Your task to perform on an android device: Go to ESPN.com Image 0: 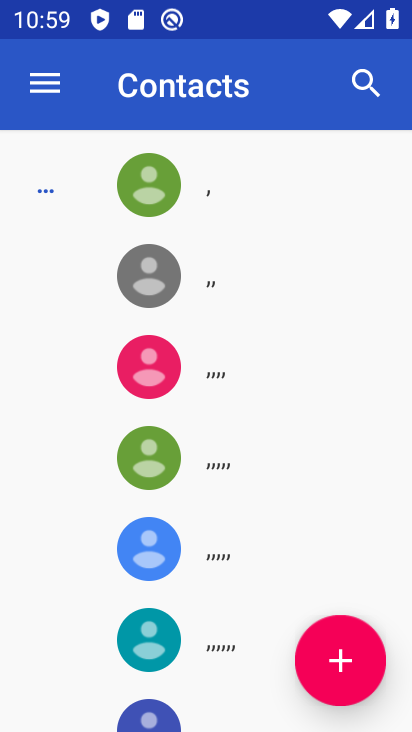
Step 0: press home button
Your task to perform on an android device: Go to ESPN.com Image 1: 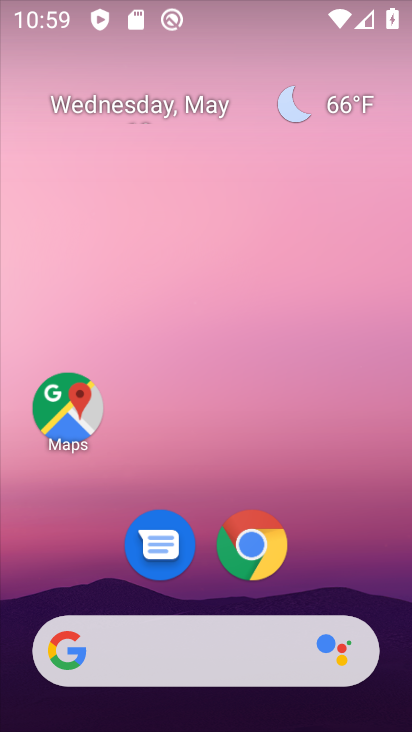
Step 1: click (244, 642)
Your task to perform on an android device: Go to ESPN.com Image 2: 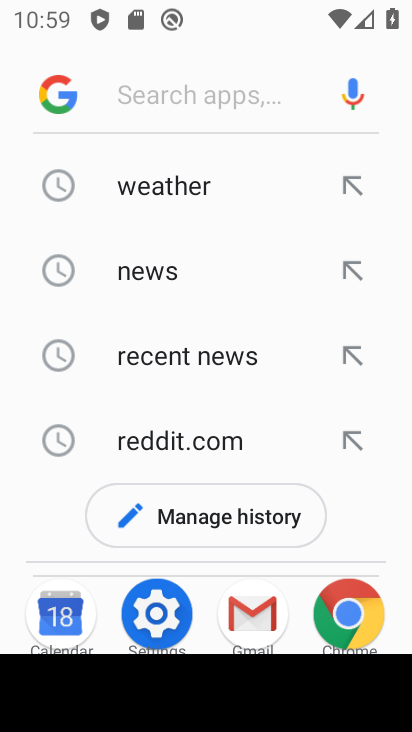
Step 2: type "espn.com"
Your task to perform on an android device: Go to ESPN.com Image 3: 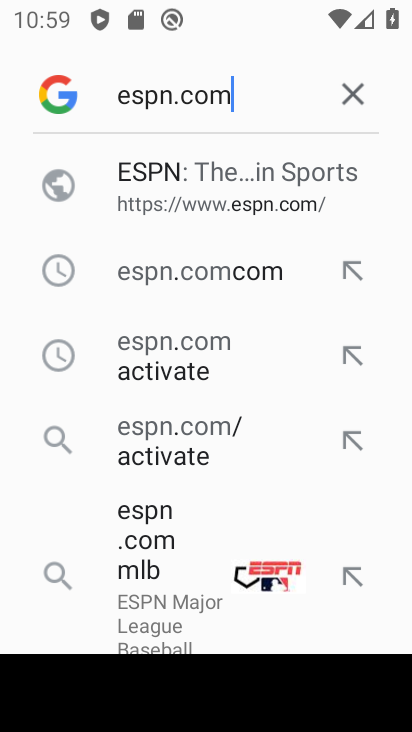
Step 3: click (211, 181)
Your task to perform on an android device: Go to ESPN.com Image 4: 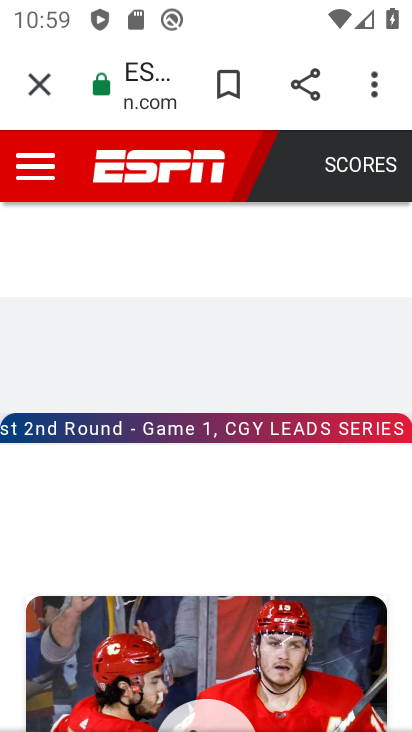
Step 4: task complete